Your task to perform on an android device: change the clock display to show seconds Image 0: 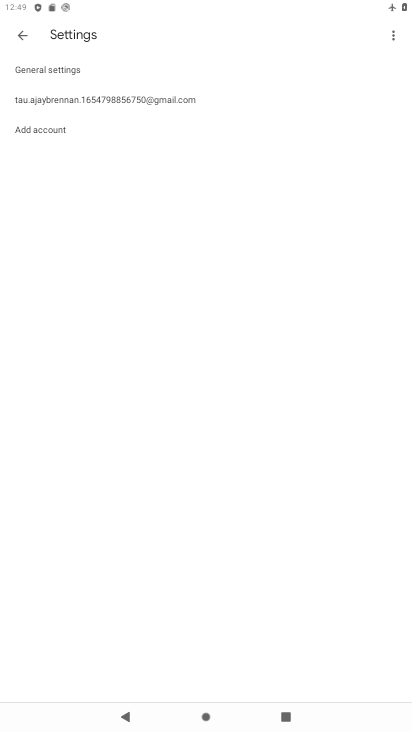
Step 0: press home button
Your task to perform on an android device: change the clock display to show seconds Image 1: 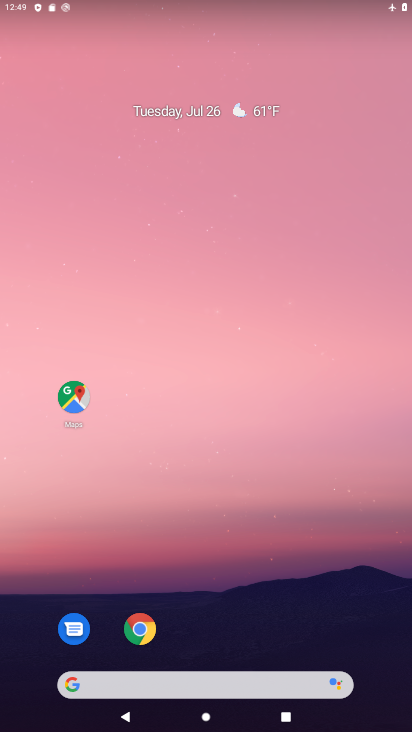
Step 1: drag from (236, 669) to (232, 45)
Your task to perform on an android device: change the clock display to show seconds Image 2: 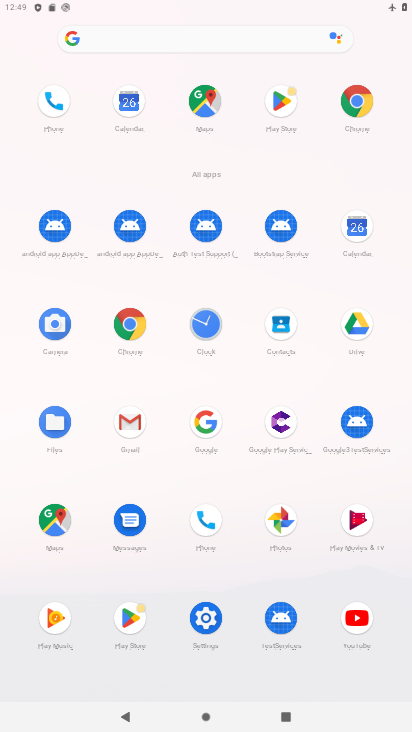
Step 2: click (201, 327)
Your task to perform on an android device: change the clock display to show seconds Image 3: 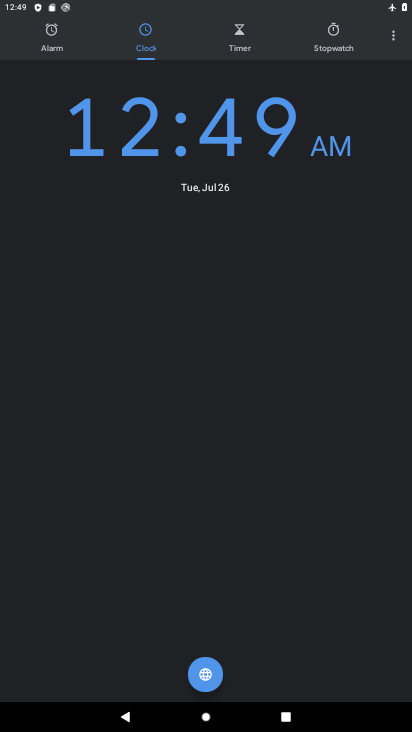
Step 3: click (395, 38)
Your task to perform on an android device: change the clock display to show seconds Image 4: 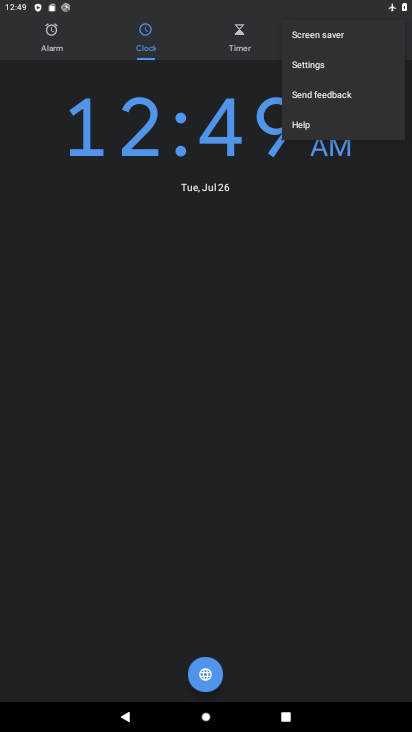
Step 4: click (308, 60)
Your task to perform on an android device: change the clock display to show seconds Image 5: 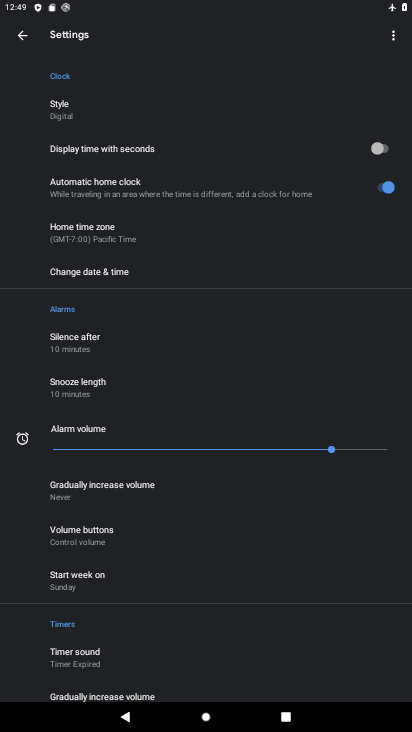
Step 5: click (374, 152)
Your task to perform on an android device: change the clock display to show seconds Image 6: 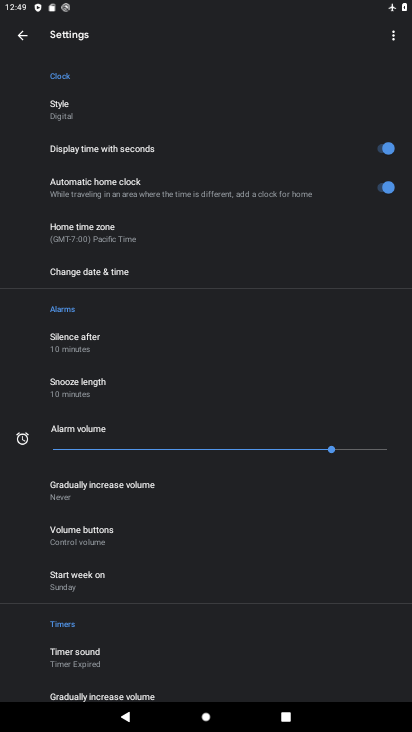
Step 6: task complete